Your task to perform on an android device: toggle location history Image 0: 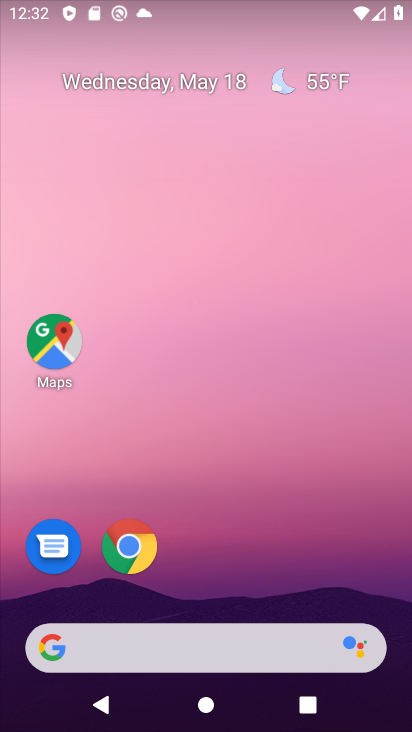
Step 0: drag from (323, 586) to (366, 91)
Your task to perform on an android device: toggle location history Image 1: 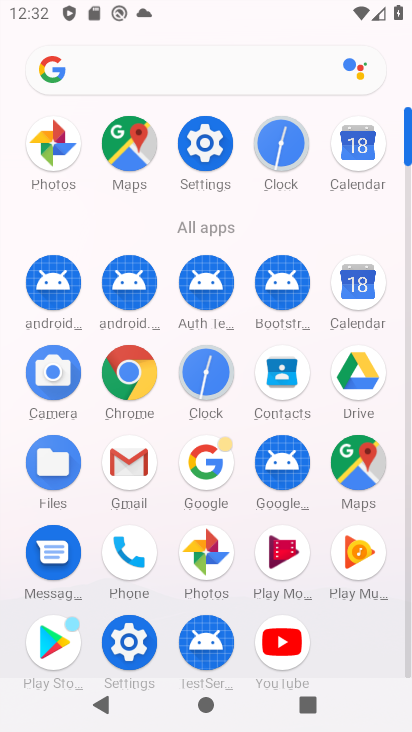
Step 1: click (200, 137)
Your task to perform on an android device: toggle location history Image 2: 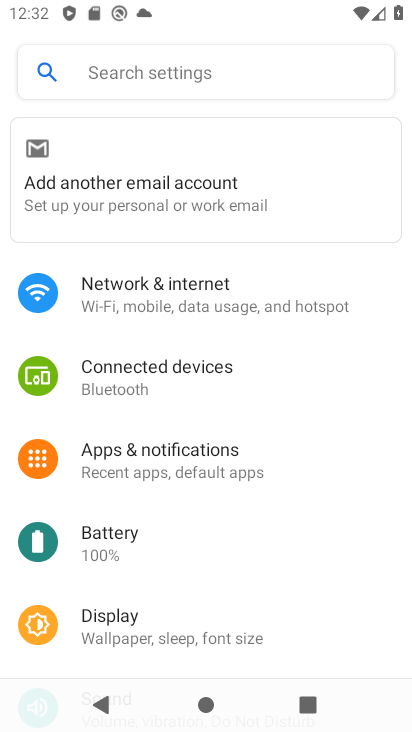
Step 2: drag from (234, 573) to (320, 217)
Your task to perform on an android device: toggle location history Image 3: 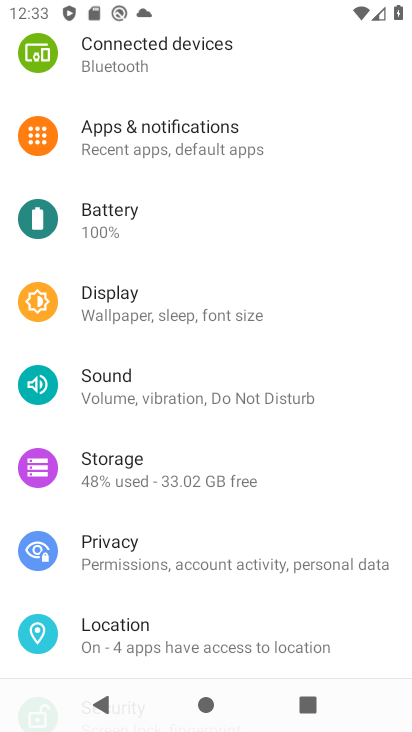
Step 3: click (161, 629)
Your task to perform on an android device: toggle location history Image 4: 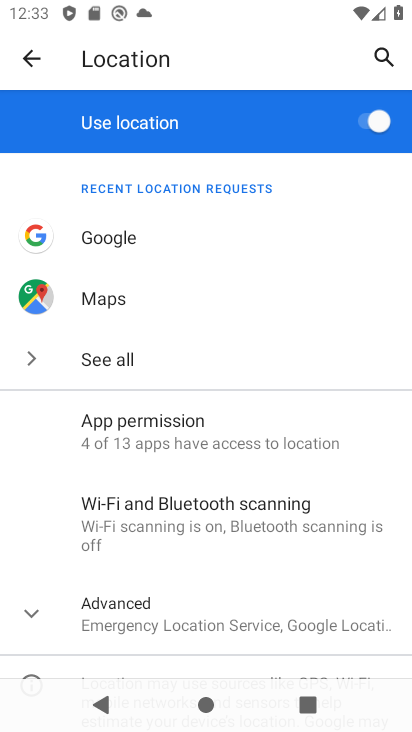
Step 4: drag from (240, 578) to (345, 275)
Your task to perform on an android device: toggle location history Image 5: 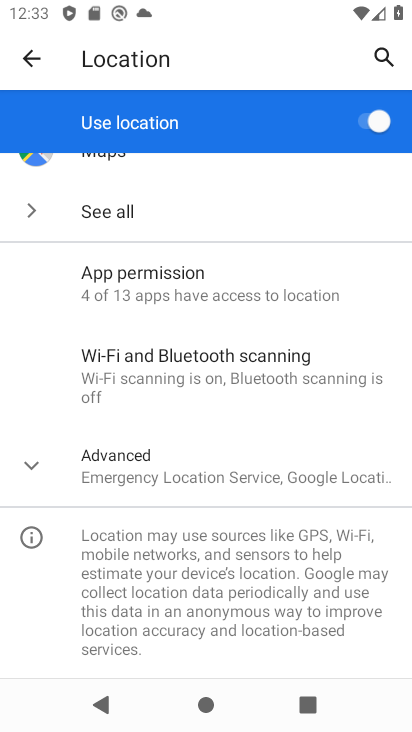
Step 5: click (303, 476)
Your task to perform on an android device: toggle location history Image 6: 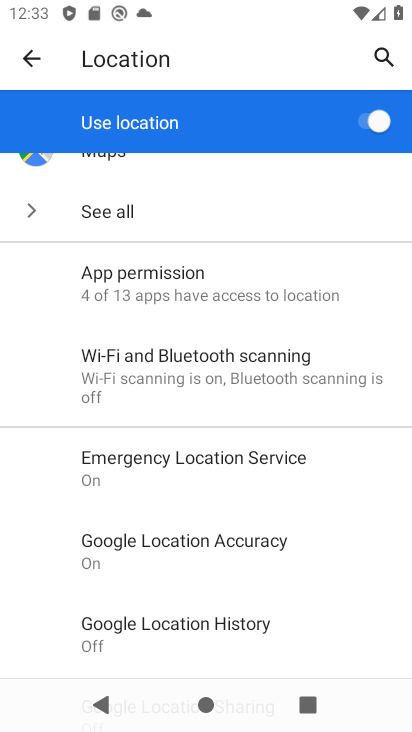
Step 6: click (249, 619)
Your task to perform on an android device: toggle location history Image 7: 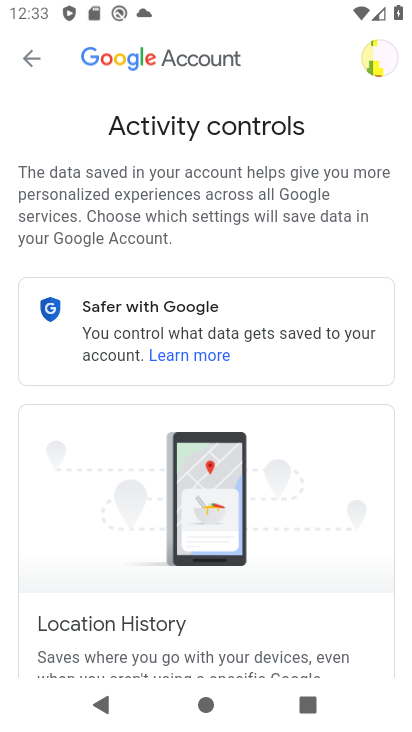
Step 7: drag from (268, 627) to (350, 172)
Your task to perform on an android device: toggle location history Image 8: 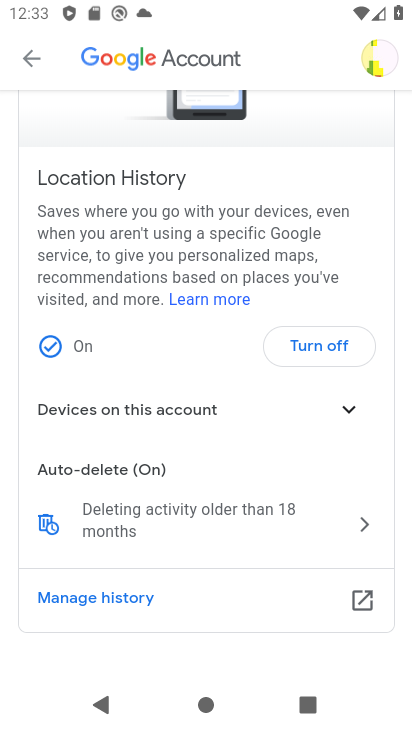
Step 8: click (310, 347)
Your task to perform on an android device: toggle location history Image 9: 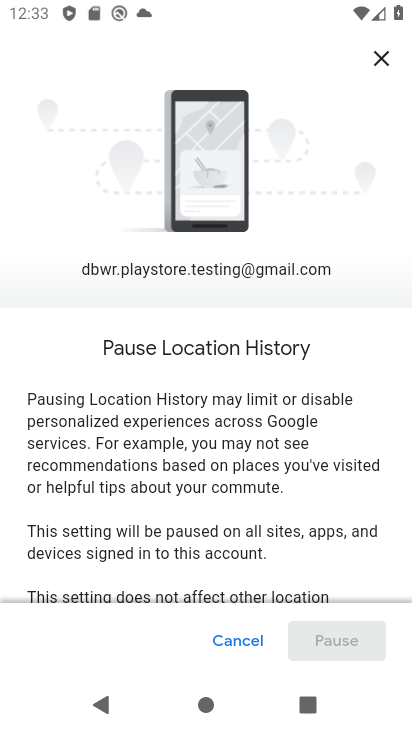
Step 9: drag from (340, 574) to (353, 102)
Your task to perform on an android device: toggle location history Image 10: 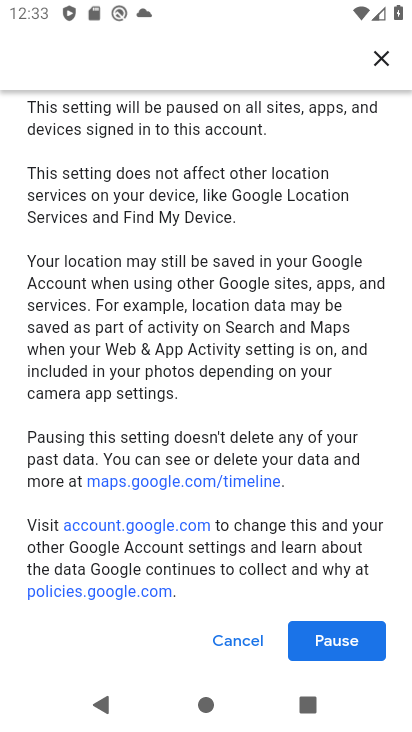
Step 10: drag from (333, 545) to (316, 252)
Your task to perform on an android device: toggle location history Image 11: 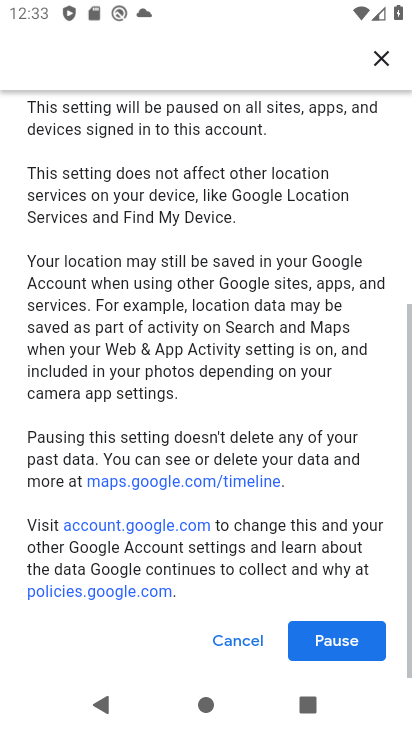
Step 11: click (343, 629)
Your task to perform on an android device: toggle location history Image 12: 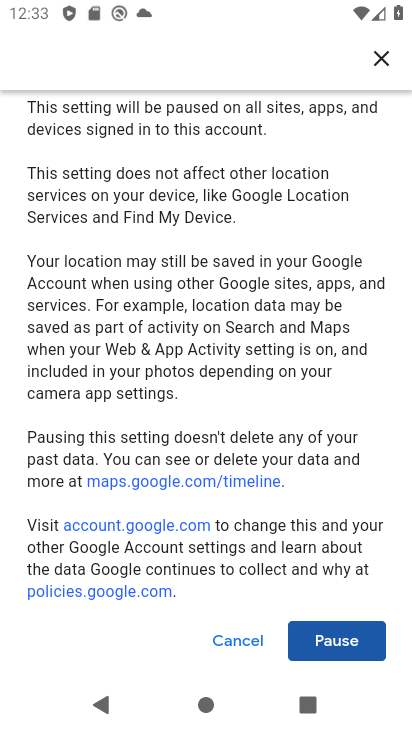
Step 12: click (342, 641)
Your task to perform on an android device: toggle location history Image 13: 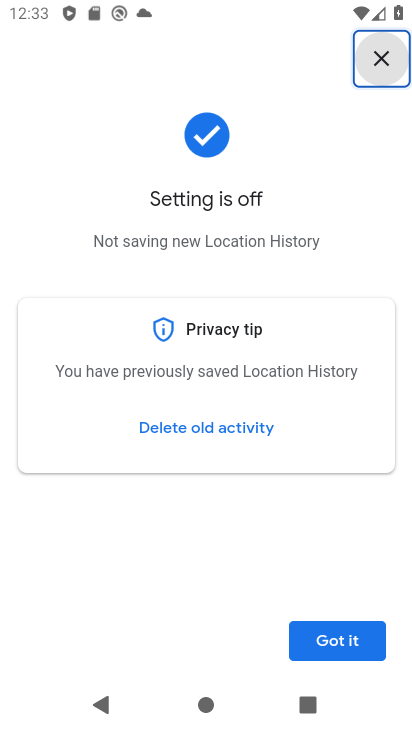
Step 13: click (358, 628)
Your task to perform on an android device: toggle location history Image 14: 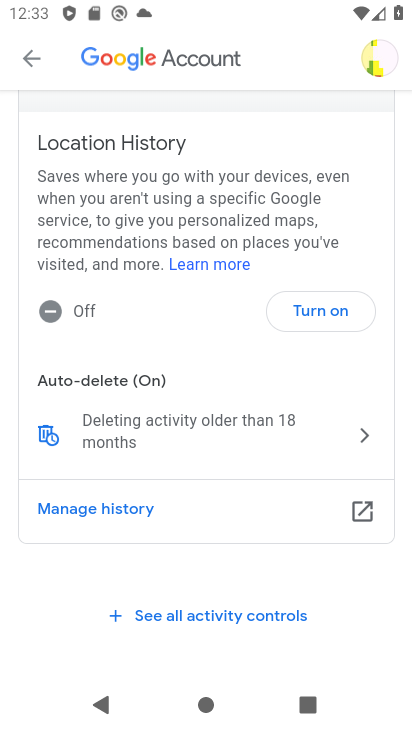
Step 14: task complete